Your task to perform on an android device: toggle wifi Image 0: 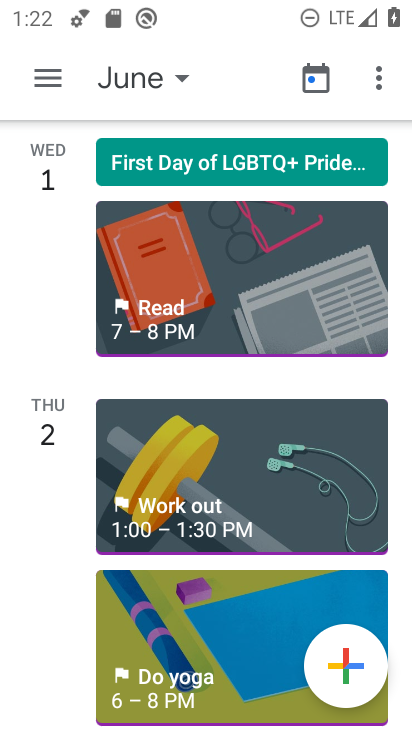
Step 0: press home button
Your task to perform on an android device: toggle wifi Image 1: 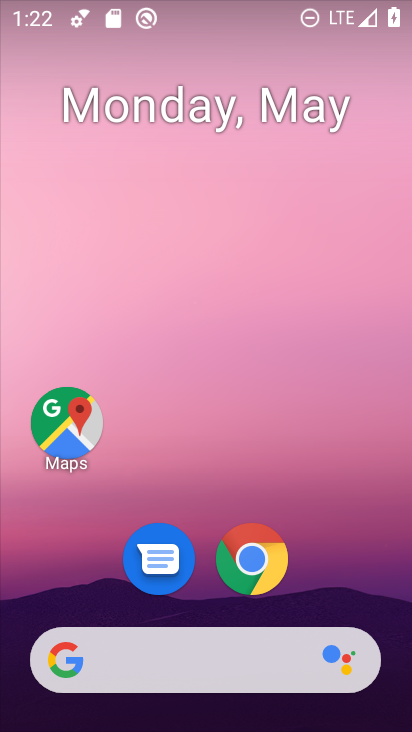
Step 1: drag from (213, 565) to (222, 41)
Your task to perform on an android device: toggle wifi Image 2: 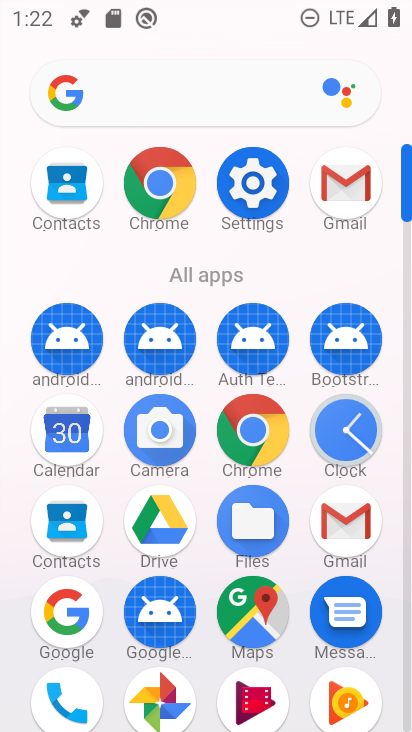
Step 2: click (247, 188)
Your task to perform on an android device: toggle wifi Image 3: 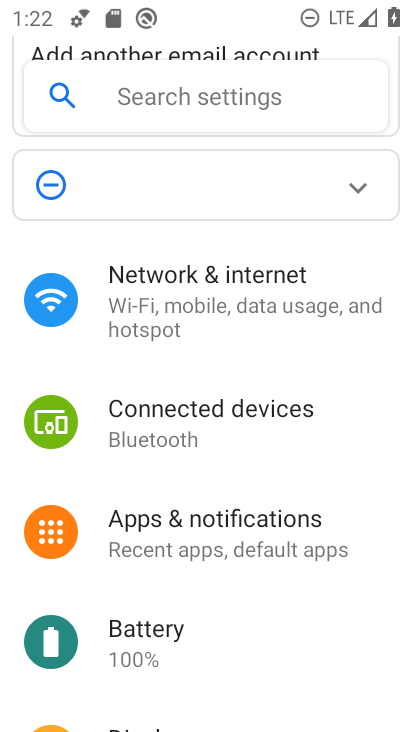
Step 3: click (178, 307)
Your task to perform on an android device: toggle wifi Image 4: 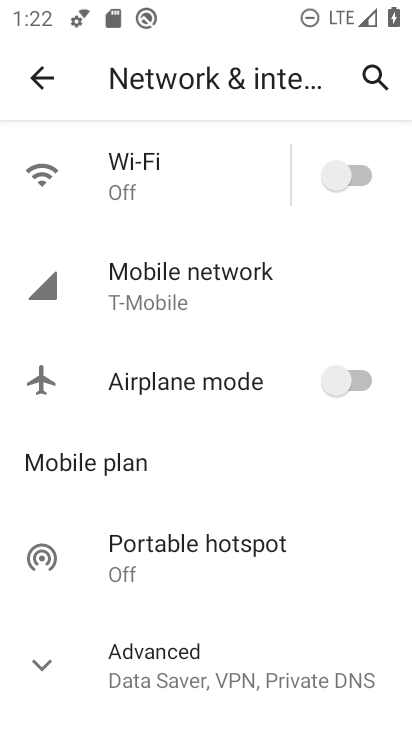
Step 4: click (330, 178)
Your task to perform on an android device: toggle wifi Image 5: 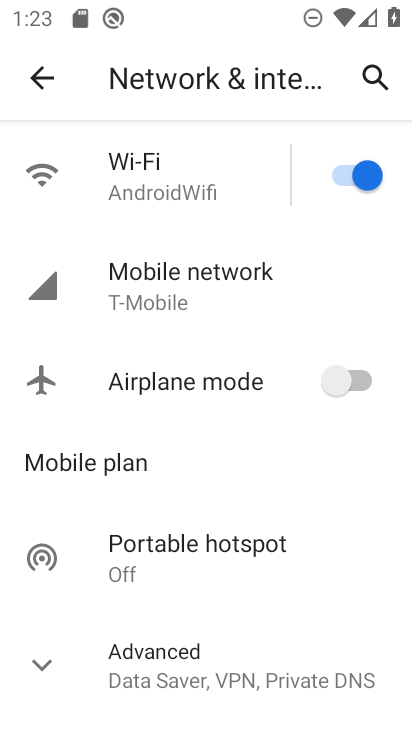
Step 5: task complete